Your task to perform on an android device: Go to Google Image 0: 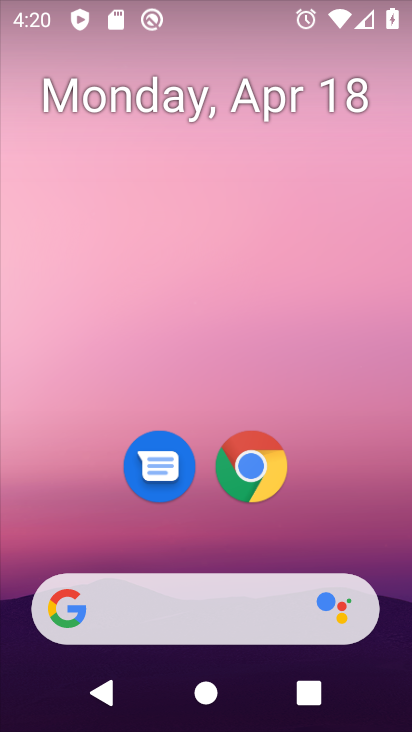
Step 0: drag from (377, 513) to (283, 23)
Your task to perform on an android device: Go to Google Image 1: 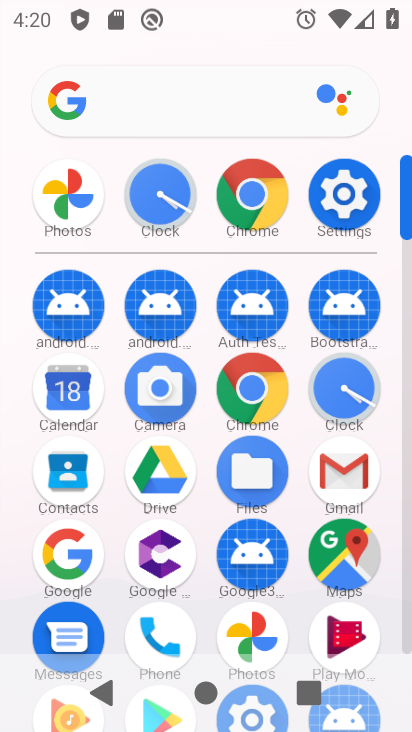
Step 1: click (169, 97)
Your task to perform on an android device: Go to Google Image 2: 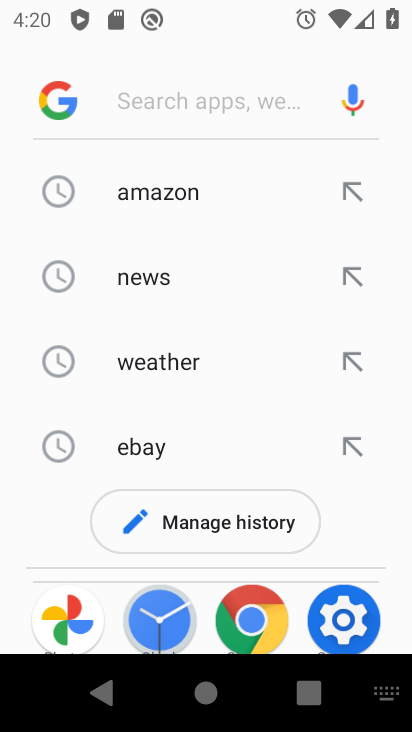
Step 2: type "google"
Your task to perform on an android device: Go to Google Image 3: 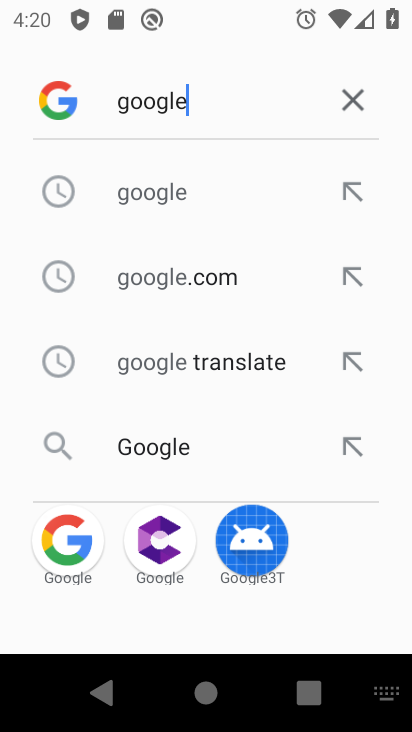
Step 3: click (154, 267)
Your task to perform on an android device: Go to Google Image 4: 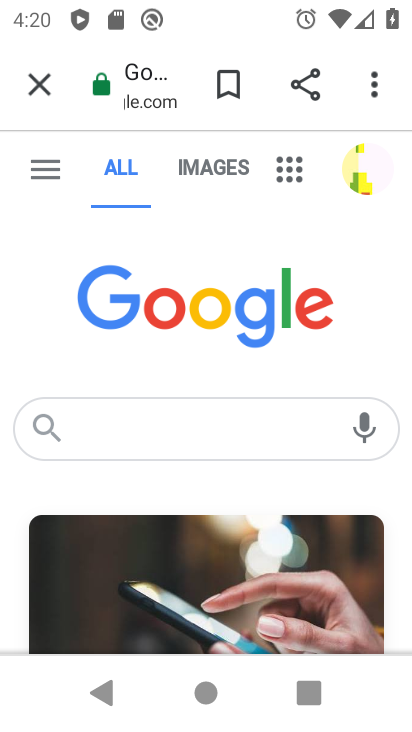
Step 4: task complete